Your task to perform on an android device: Open Maps and search for coffee Image 0: 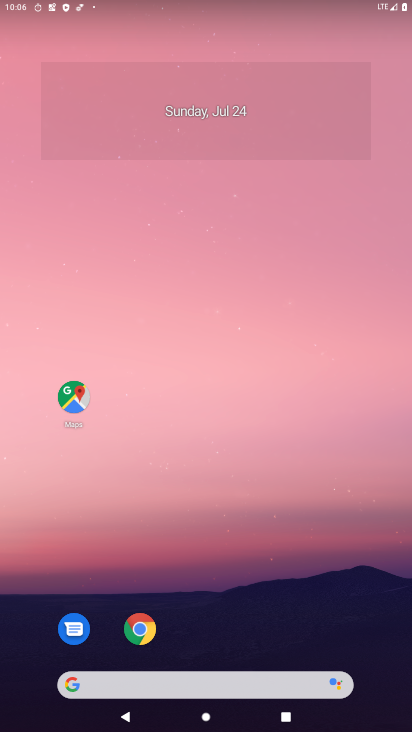
Step 0: press home button
Your task to perform on an android device: Open Maps and search for coffee Image 1: 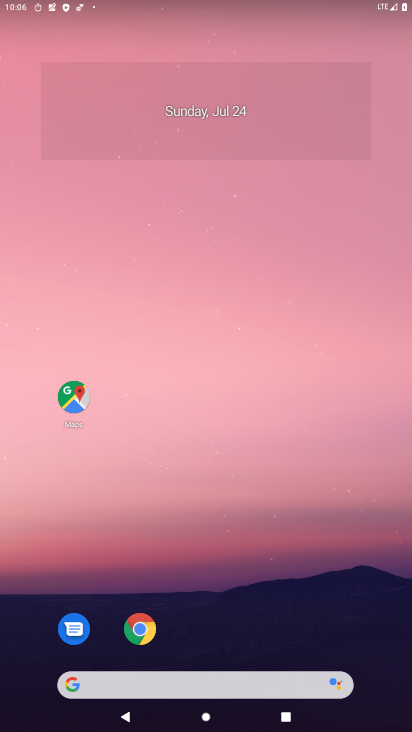
Step 1: click (73, 387)
Your task to perform on an android device: Open Maps and search for coffee Image 2: 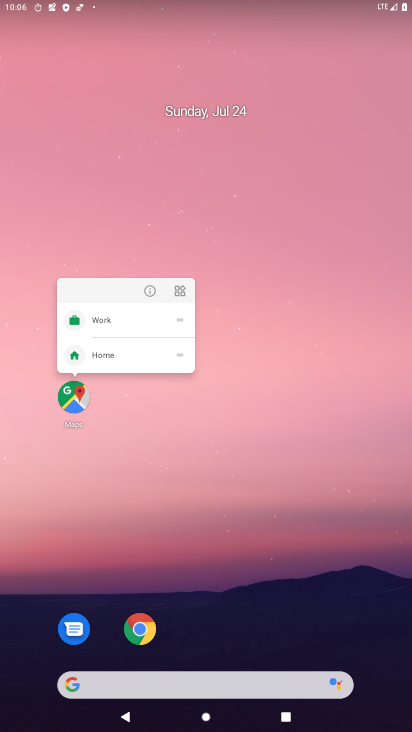
Step 2: click (78, 397)
Your task to perform on an android device: Open Maps and search for coffee Image 3: 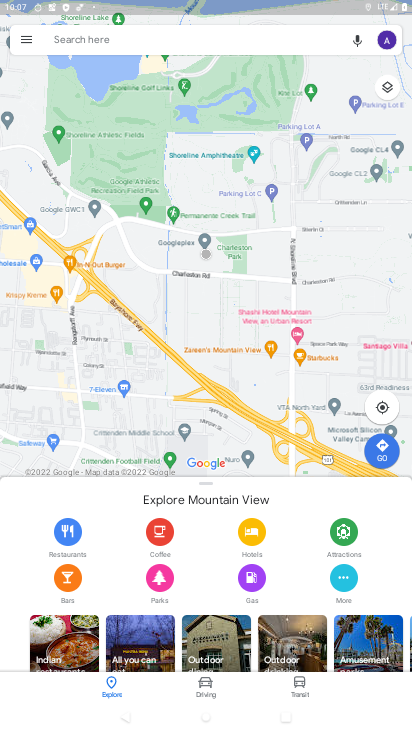
Step 3: click (115, 39)
Your task to perform on an android device: Open Maps and search for coffee Image 4: 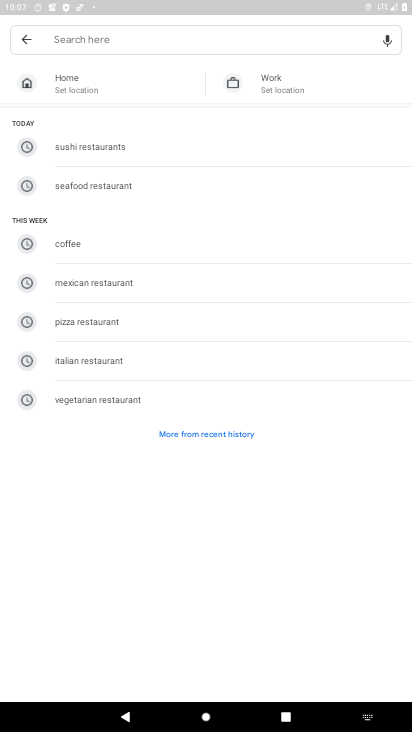
Step 4: type "coffee"
Your task to perform on an android device: Open Maps and search for coffee Image 5: 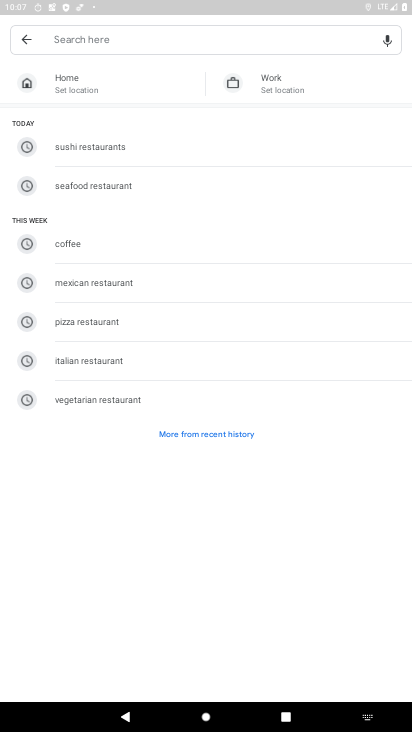
Step 5: click (72, 29)
Your task to perform on an android device: Open Maps and search for coffee Image 6: 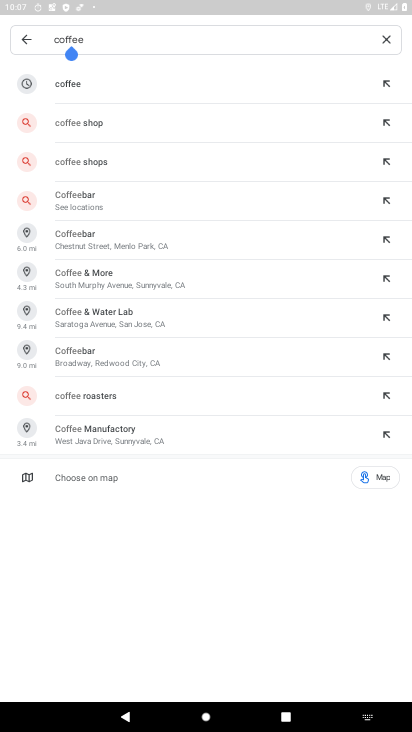
Step 6: click (70, 80)
Your task to perform on an android device: Open Maps and search for coffee Image 7: 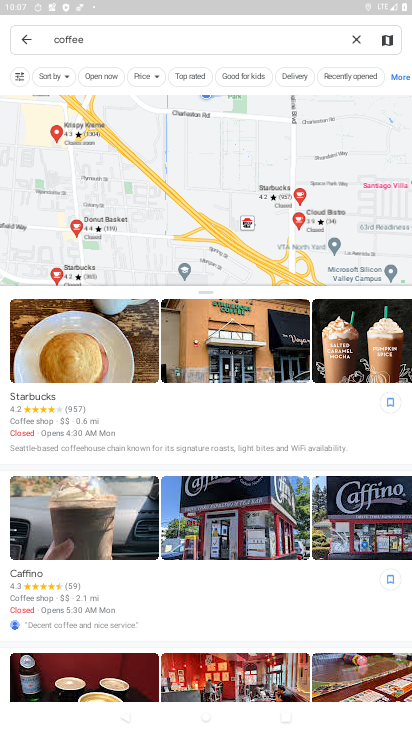
Step 7: task complete